Your task to perform on an android device: open chrome privacy settings Image 0: 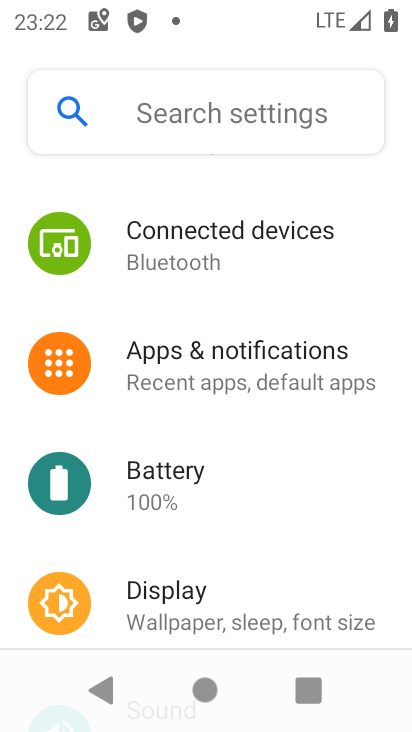
Step 0: press home button
Your task to perform on an android device: open chrome privacy settings Image 1: 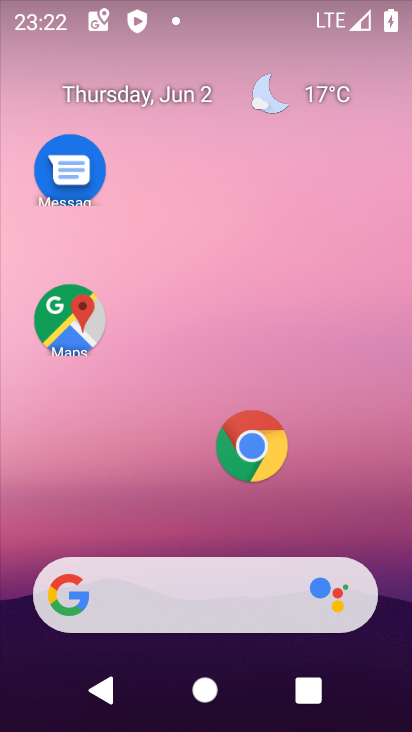
Step 1: drag from (287, 494) to (248, 35)
Your task to perform on an android device: open chrome privacy settings Image 2: 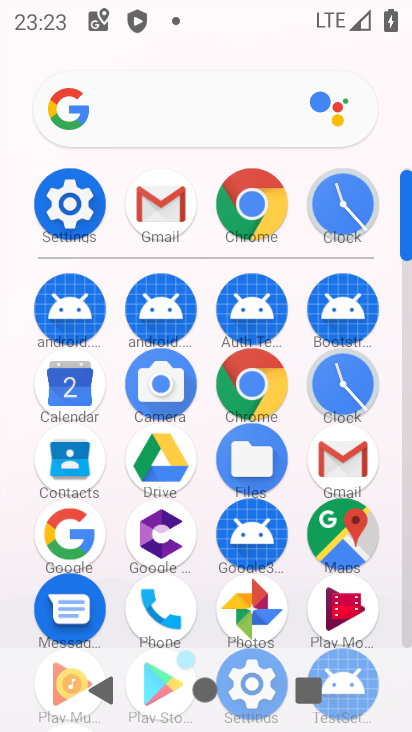
Step 2: click (251, 204)
Your task to perform on an android device: open chrome privacy settings Image 3: 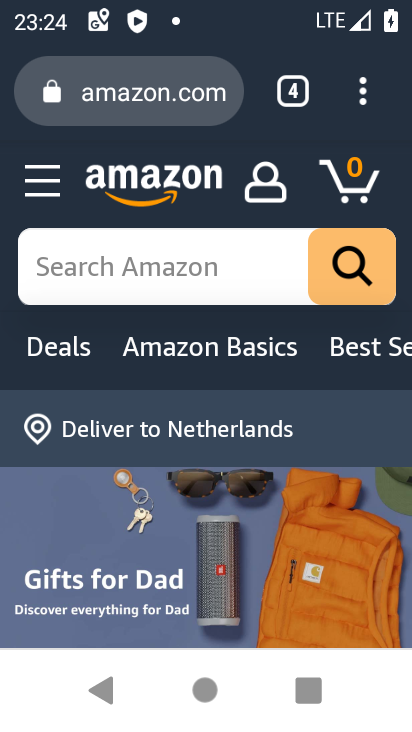
Step 3: drag from (356, 82) to (201, 476)
Your task to perform on an android device: open chrome privacy settings Image 4: 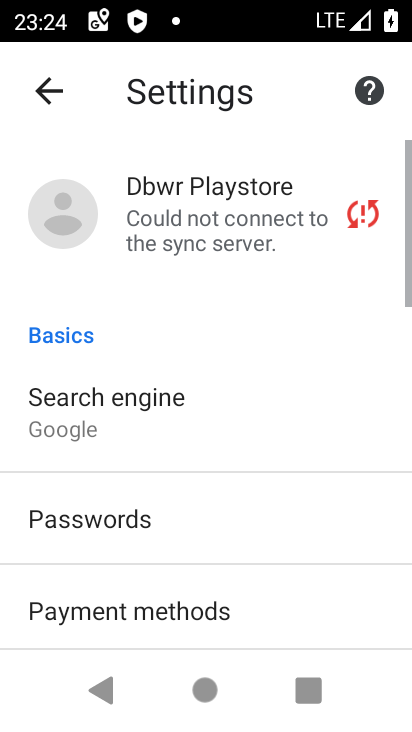
Step 4: drag from (172, 618) to (292, 5)
Your task to perform on an android device: open chrome privacy settings Image 5: 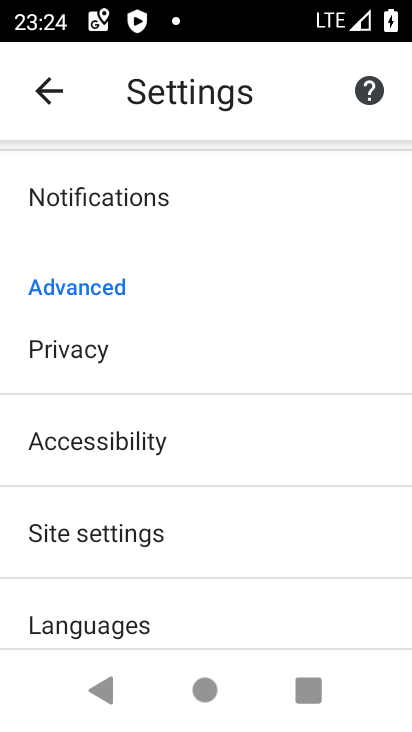
Step 5: click (44, 367)
Your task to perform on an android device: open chrome privacy settings Image 6: 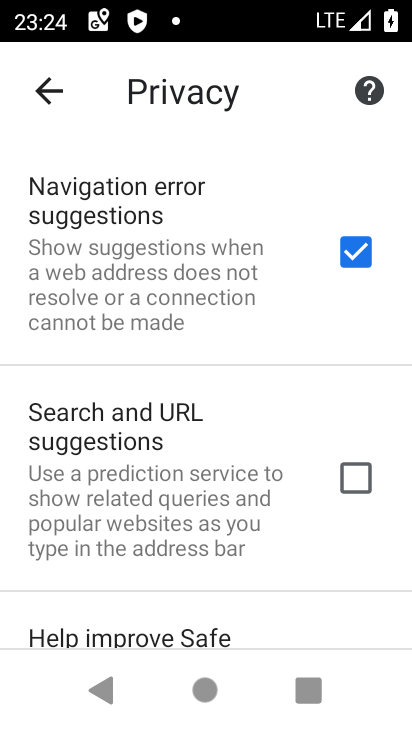
Step 6: task complete